Your task to perform on an android device: Open Wikipedia Image 0: 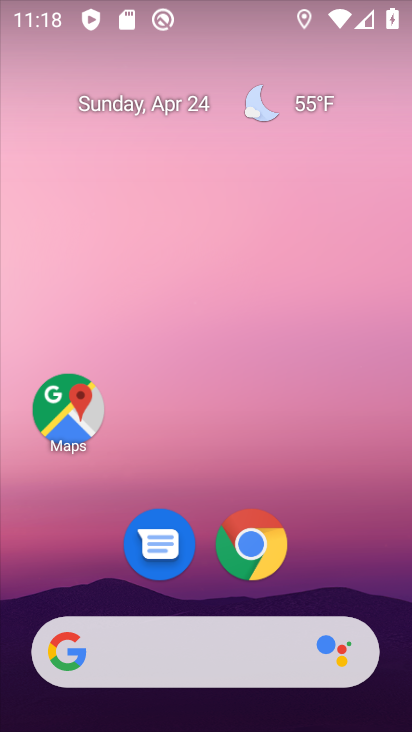
Step 0: click (259, 555)
Your task to perform on an android device: Open Wikipedia Image 1: 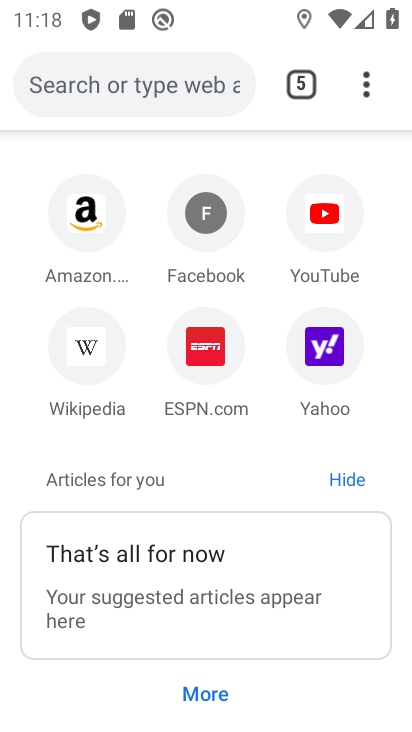
Step 1: click (88, 353)
Your task to perform on an android device: Open Wikipedia Image 2: 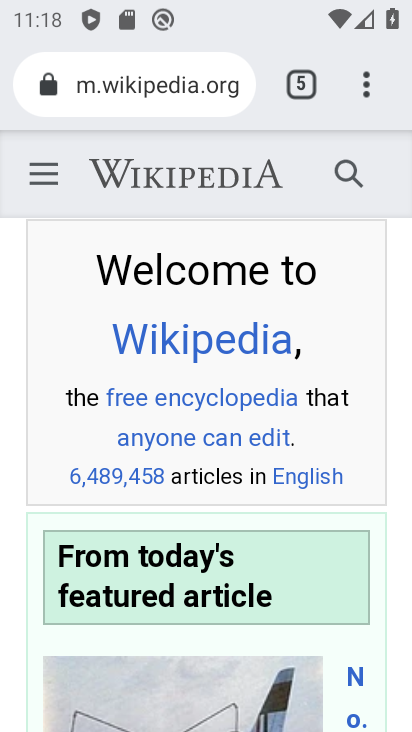
Step 2: task complete